Your task to perform on an android device: open the mobile data screen to see how much data has been used Image 0: 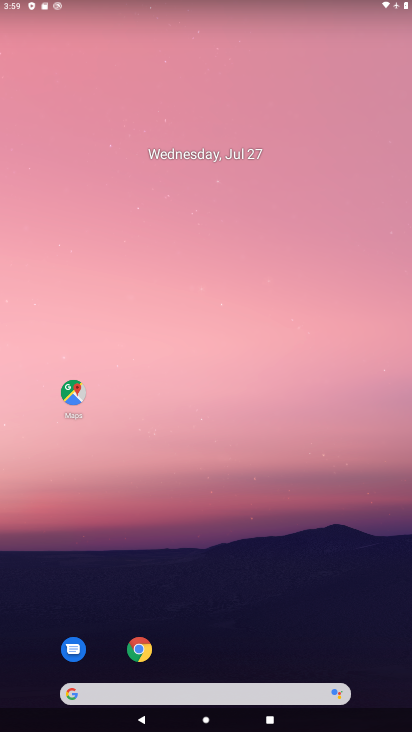
Step 0: click (220, 106)
Your task to perform on an android device: open the mobile data screen to see how much data has been used Image 1: 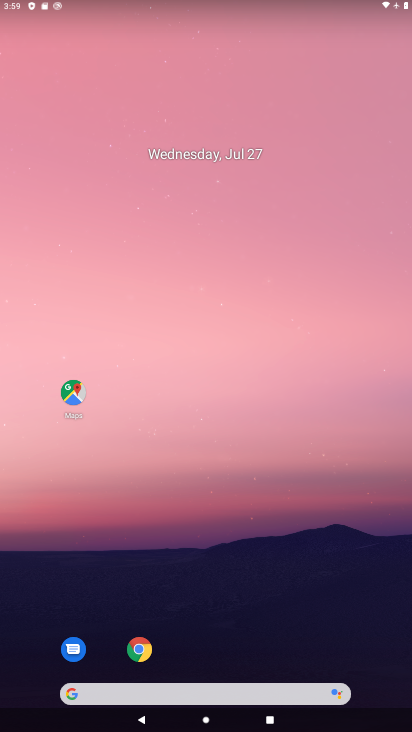
Step 1: drag from (376, 590) to (321, 180)
Your task to perform on an android device: open the mobile data screen to see how much data has been used Image 2: 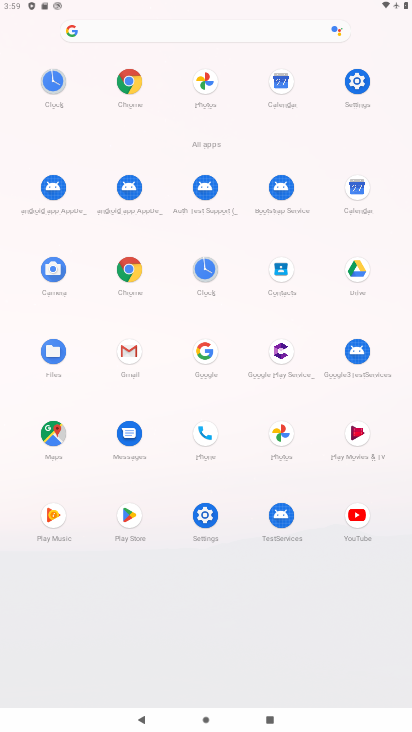
Step 2: click (361, 71)
Your task to perform on an android device: open the mobile data screen to see how much data has been used Image 3: 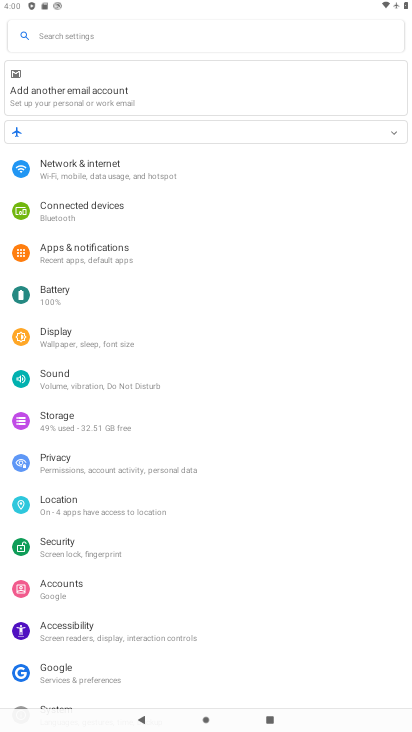
Step 3: click (126, 165)
Your task to perform on an android device: open the mobile data screen to see how much data has been used Image 4: 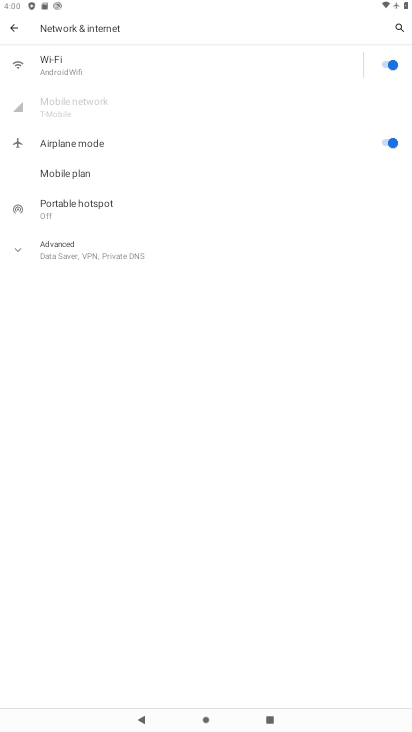
Step 4: click (106, 114)
Your task to perform on an android device: open the mobile data screen to see how much data has been used Image 5: 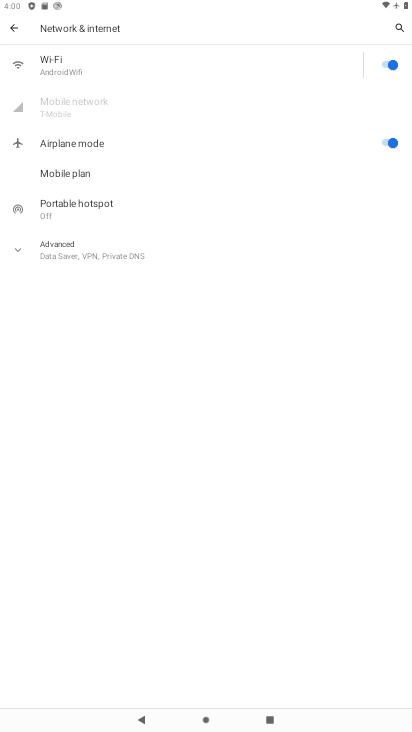
Step 5: task complete